Your task to perform on an android device: Open Google Maps Image 0: 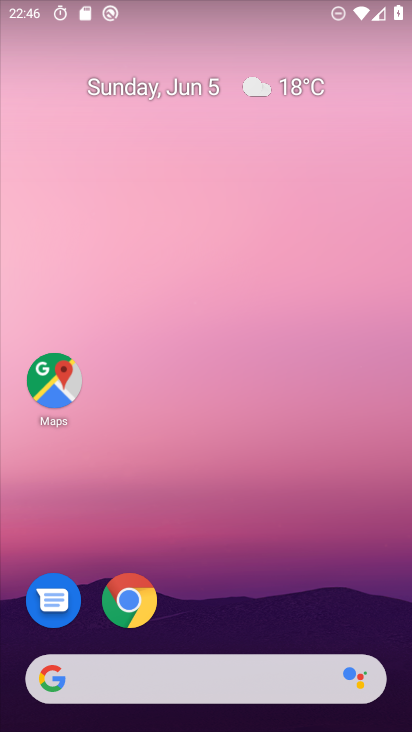
Step 0: click (55, 386)
Your task to perform on an android device: Open Google Maps Image 1: 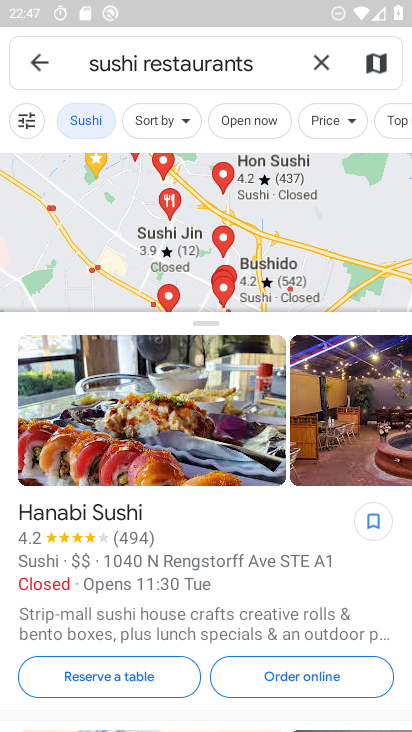
Step 1: task complete